Your task to perform on an android device: toggle notification dots Image 0: 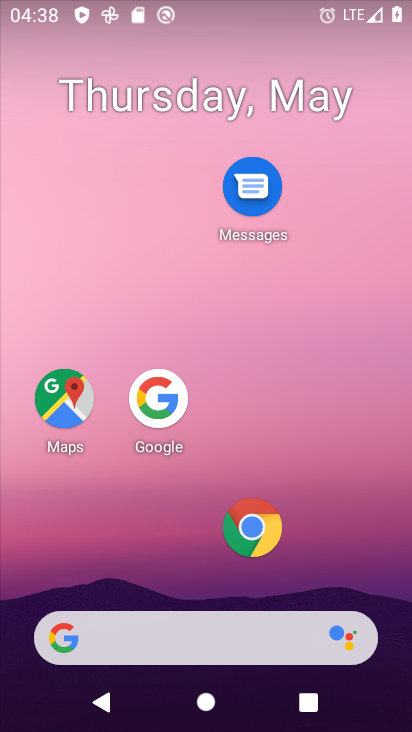
Step 0: drag from (189, 585) to (192, 189)
Your task to perform on an android device: toggle notification dots Image 1: 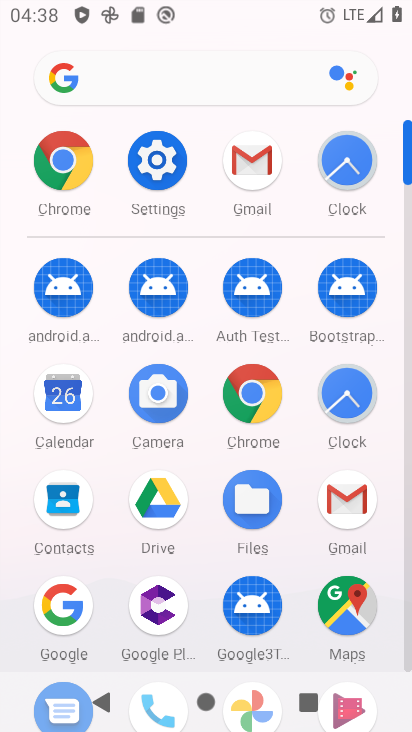
Step 1: click (149, 182)
Your task to perform on an android device: toggle notification dots Image 2: 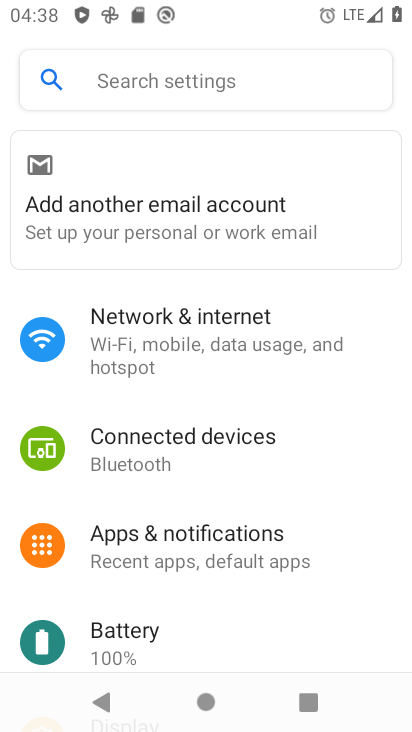
Step 2: drag from (203, 611) to (243, 219)
Your task to perform on an android device: toggle notification dots Image 3: 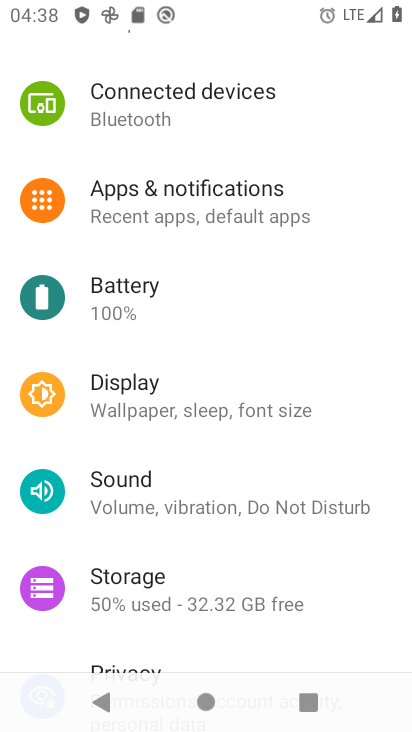
Step 3: click (161, 227)
Your task to perform on an android device: toggle notification dots Image 4: 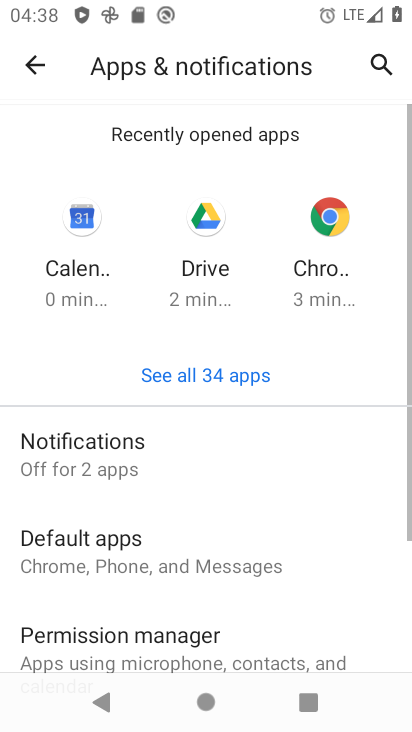
Step 4: click (135, 473)
Your task to perform on an android device: toggle notification dots Image 5: 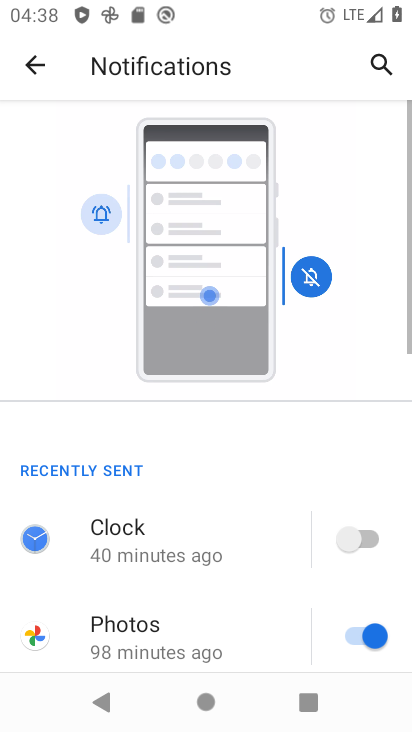
Step 5: drag from (228, 577) to (304, 107)
Your task to perform on an android device: toggle notification dots Image 6: 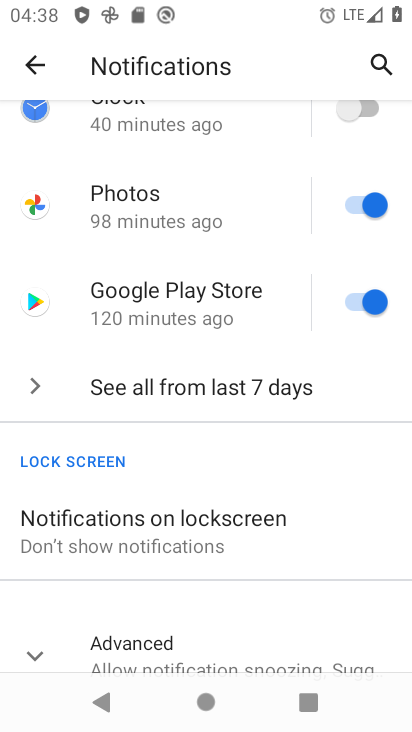
Step 6: click (158, 641)
Your task to perform on an android device: toggle notification dots Image 7: 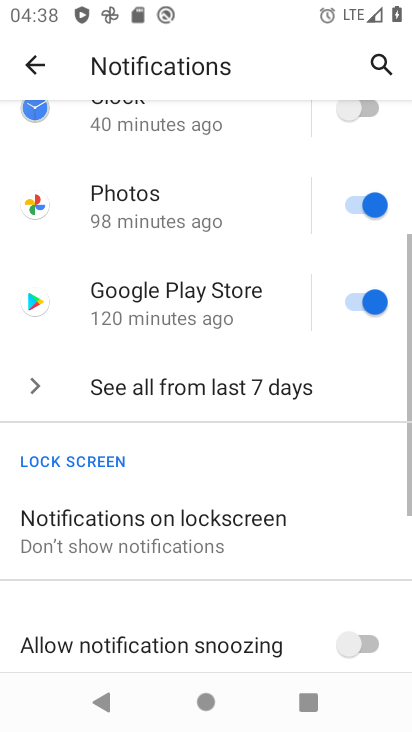
Step 7: drag from (181, 579) to (239, 84)
Your task to perform on an android device: toggle notification dots Image 8: 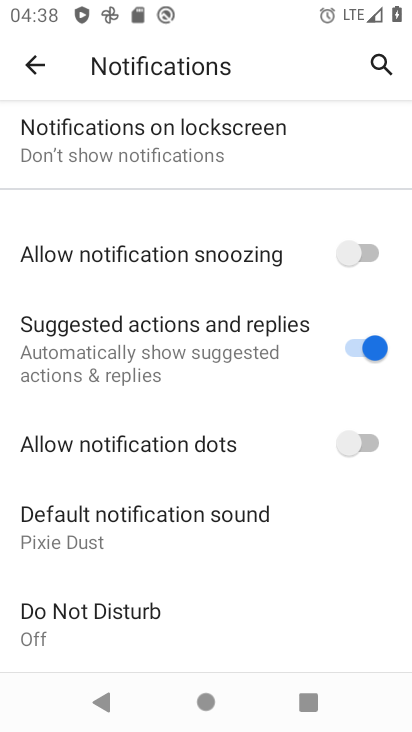
Step 8: click (345, 443)
Your task to perform on an android device: toggle notification dots Image 9: 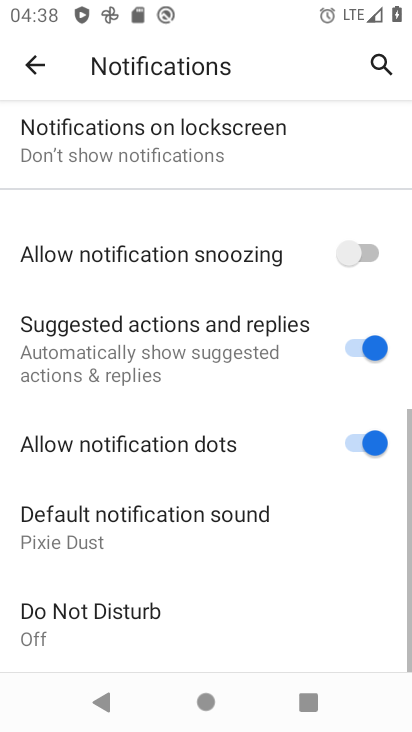
Step 9: task complete